Your task to perform on an android device: Open CNN.com Image 0: 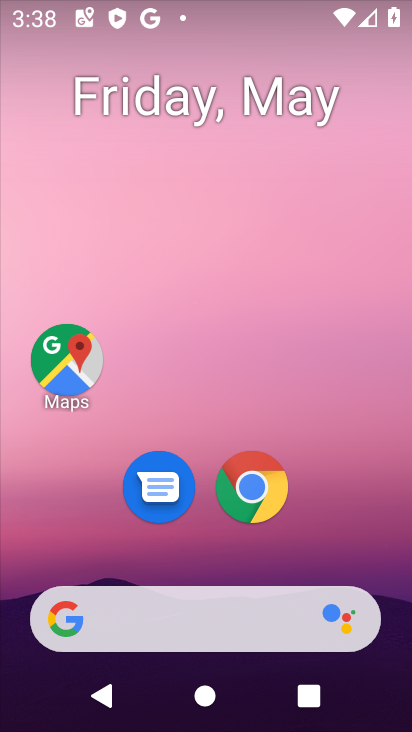
Step 0: drag from (387, 620) to (309, 84)
Your task to perform on an android device: Open CNN.com Image 1: 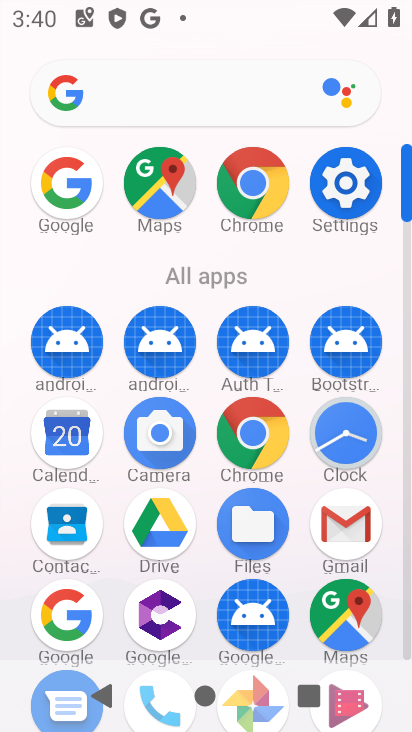
Step 1: click (62, 620)
Your task to perform on an android device: Open CNN.com Image 2: 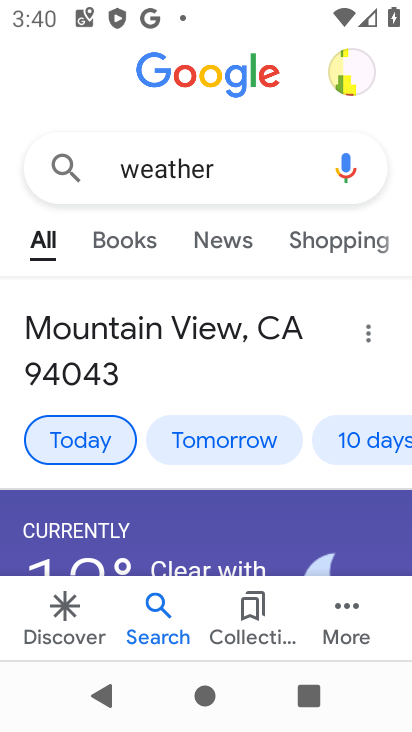
Step 2: press back button
Your task to perform on an android device: Open CNN.com Image 3: 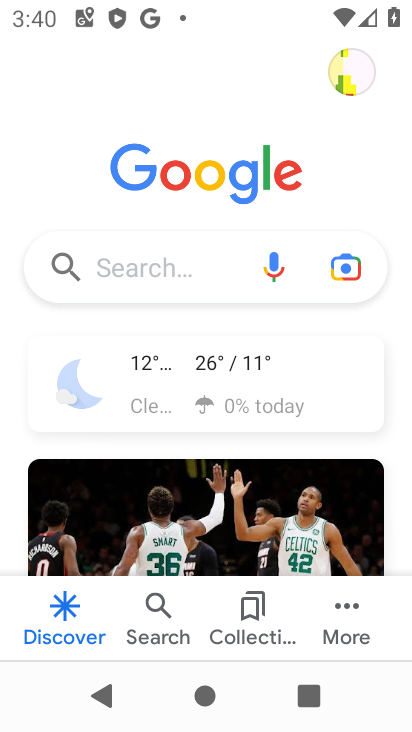
Step 3: click (149, 257)
Your task to perform on an android device: Open CNN.com Image 4: 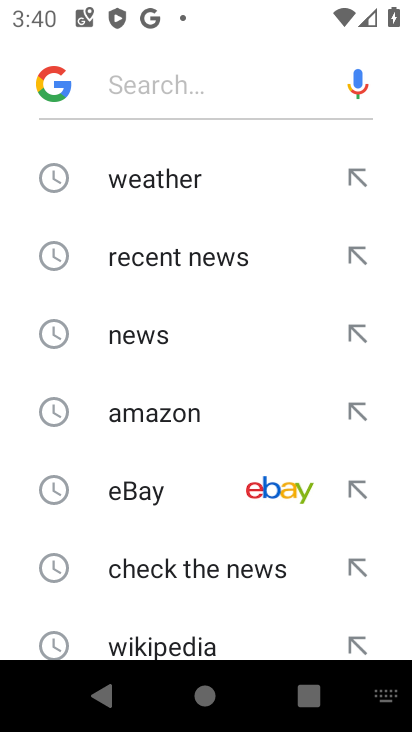
Step 4: drag from (138, 527) to (222, 108)
Your task to perform on an android device: Open CNN.com Image 5: 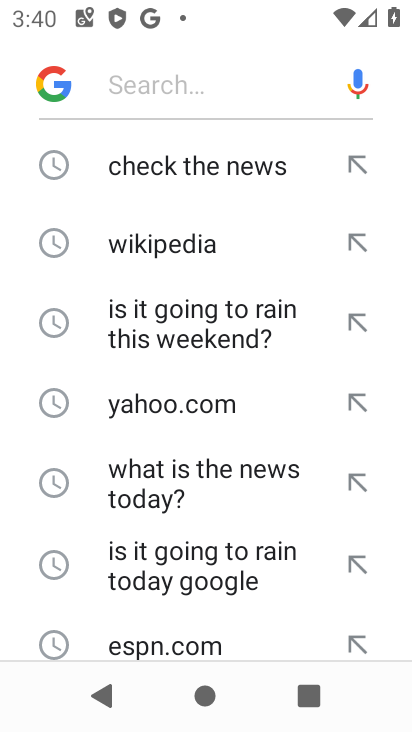
Step 5: drag from (141, 536) to (212, 119)
Your task to perform on an android device: Open CNN.com Image 6: 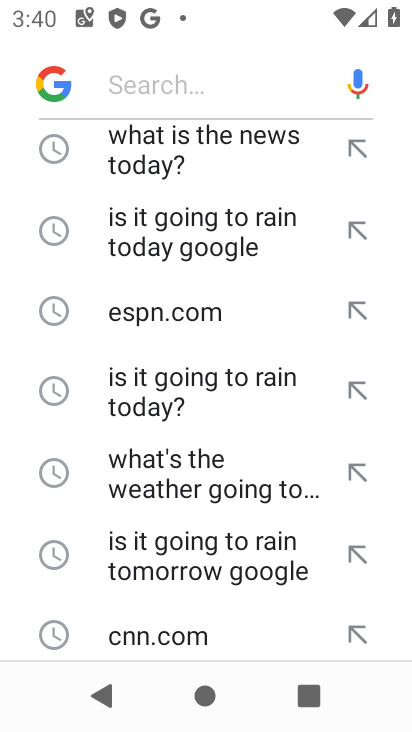
Step 6: click (167, 634)
Your task to perform on an android device: Open CNN.com Image 7: 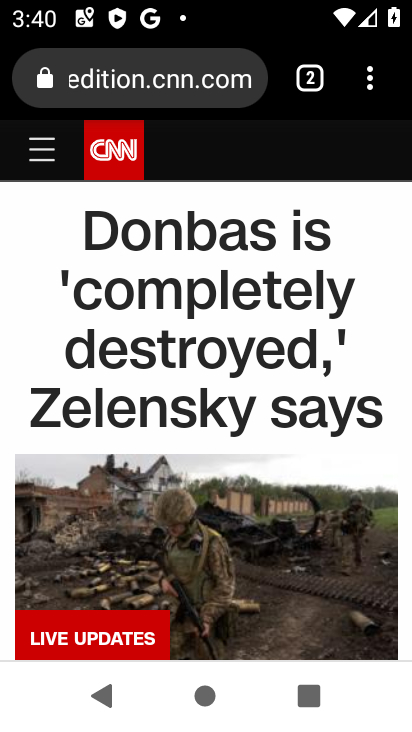
Step 7: task complete